Your task to perform on an android device: change keyboard looks Image 0: 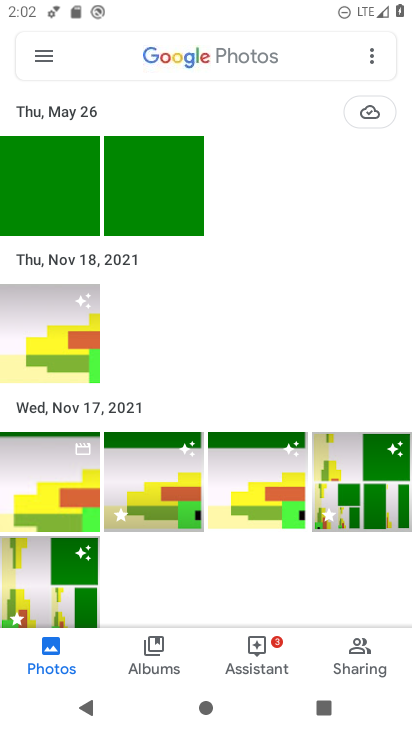
Step 0: press home button
Your task to perform on an android device: change keyboard looks Image 1: 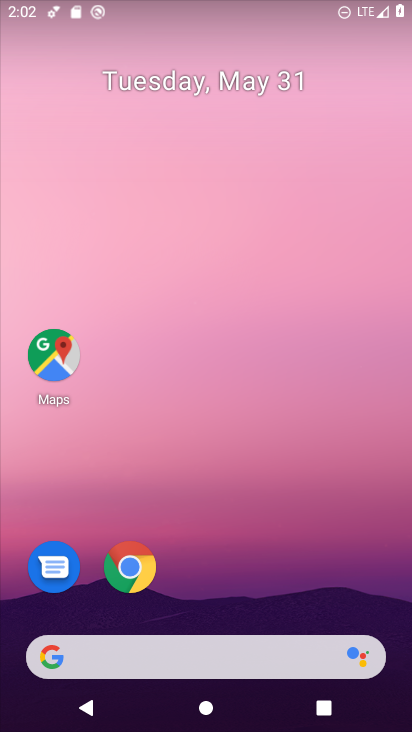
Step 1: drag from (222, 585) to (197, 136)
Your task to perform on an android device: change keyboard looks Image 2: 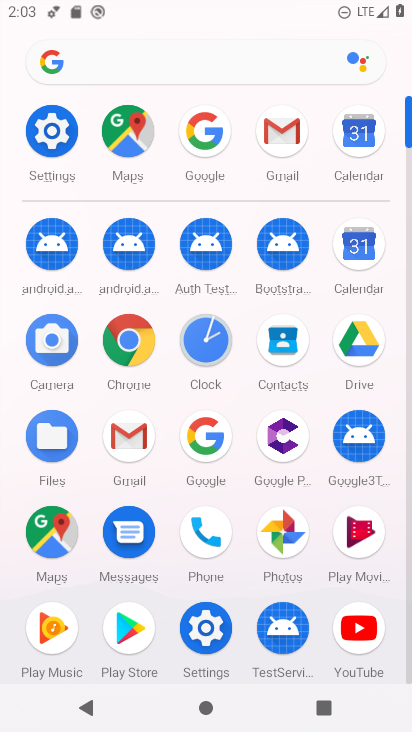
Step 2: click (69, 134)
Your task to perform on an android device: change keyboard looks Image 3: 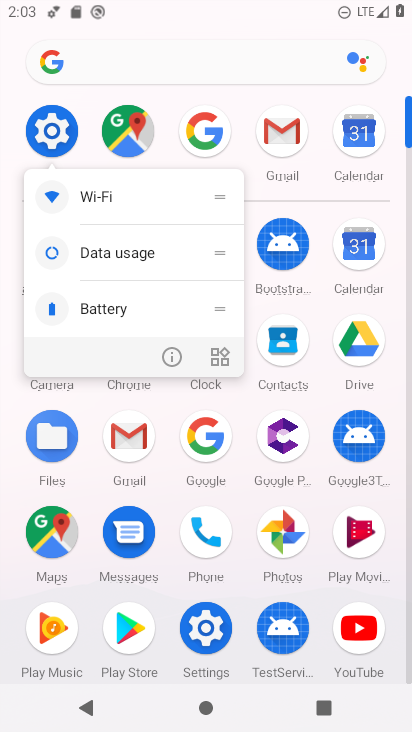
Step 3: click (67, 135)
Your task to perform on an android device: change keyboard looks Image 4: 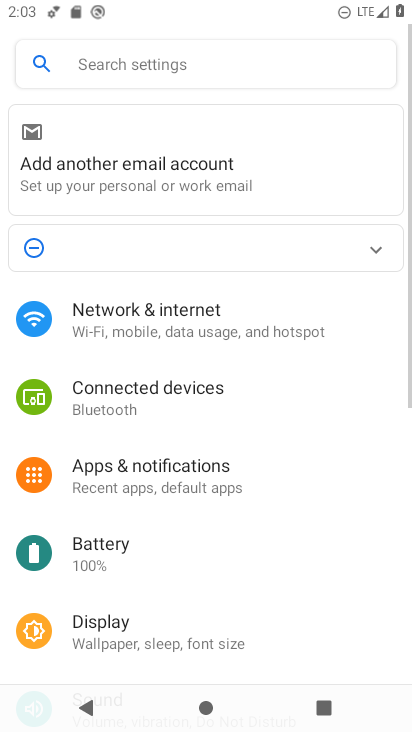
Step 4: drag from (185, 612) to (189, 306)
Your task to perform on an android device: change keyboard looks Image 5: 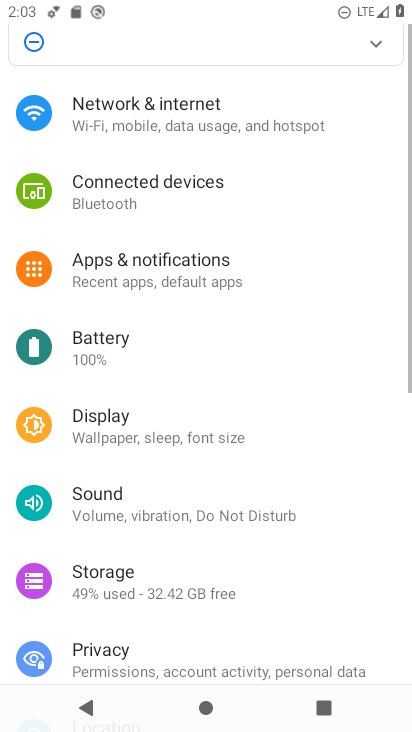
Step 5: drag from (181, 650) to (182, 279)
Your task to perform on an android device: change keyboard looks Image 6: 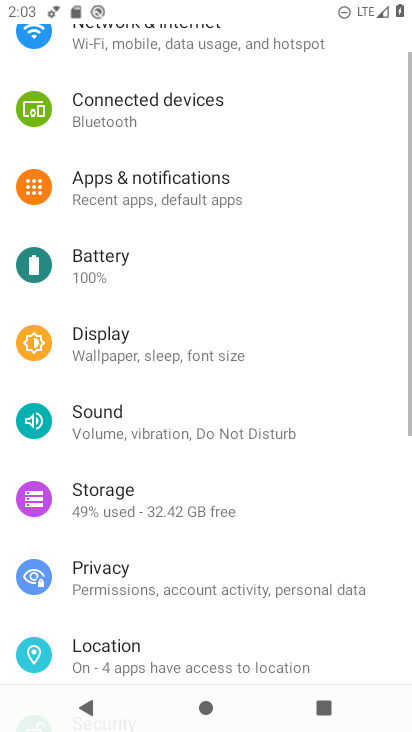
Step 6: drag from (182, 484) to (182, 218)
Your task to perform on an android device: change keyboard looks Image 7: 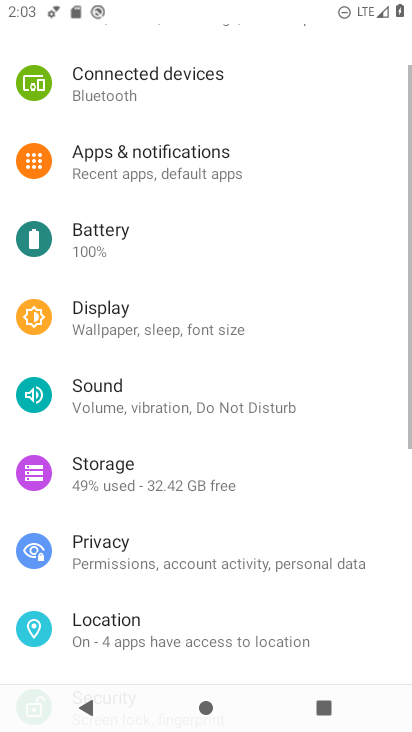
Step 7: drag from (162, 583) to (167, 198)
Your task to perform on an android device: change keyboard looks Image 8: 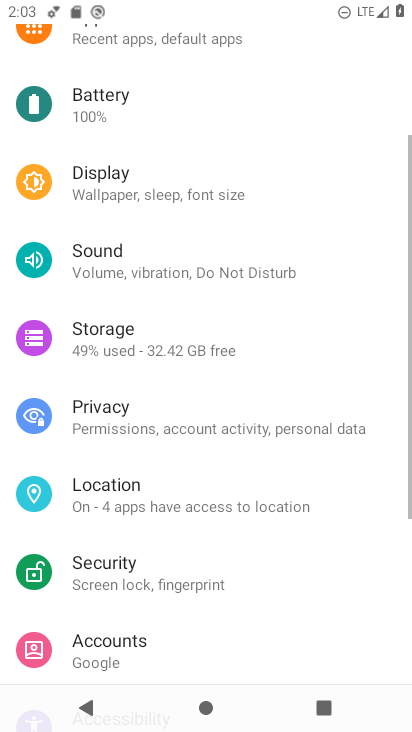
Step 8: drag from (175, 586) to (181, 226)
Your task to perform on an android device: change keyboard looks Image 9: 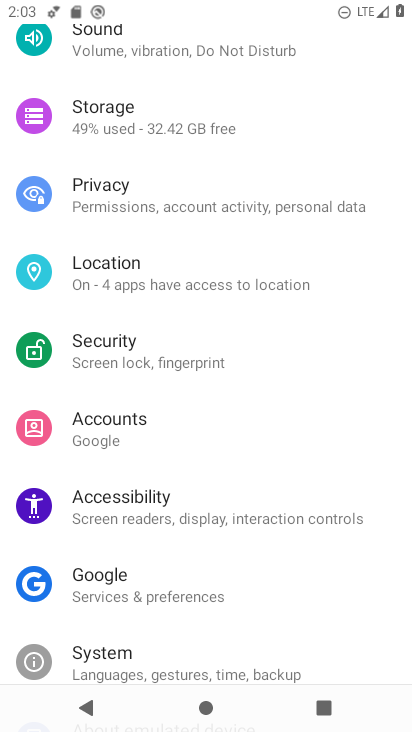
Step 9: drag from (154, 636) to (155, 321)
Your task to perform on an android device: change keyboard looks Image 10: 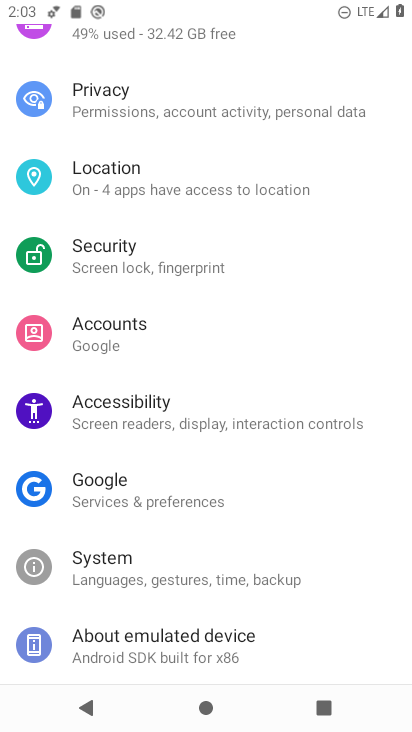
Step 10: click (118, 591)
Your task to perform on an android device: change keyboard looks Image 11: 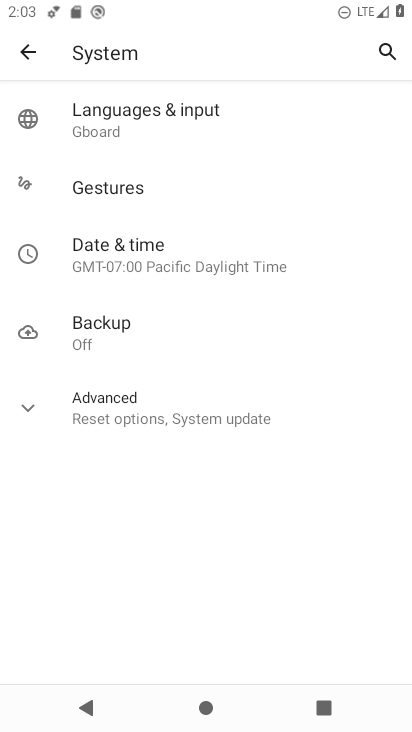
Step 11: click (130, 105)
Your task to perform on an android device: change keyboard looks Image 12: 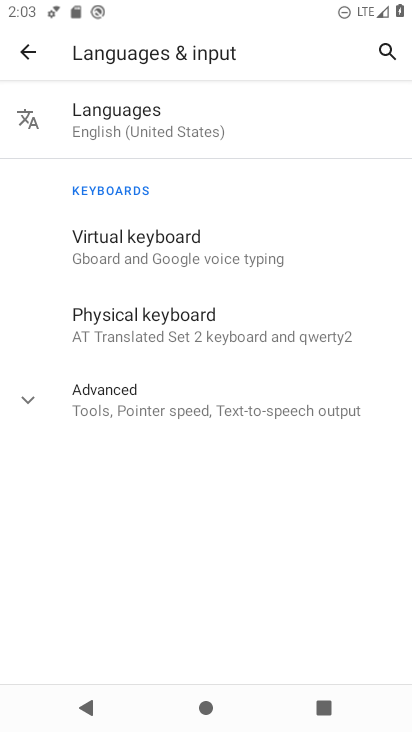
Step 12: click (163, 120)
Your task to perform on an android device: change keyboard looks Image 13: 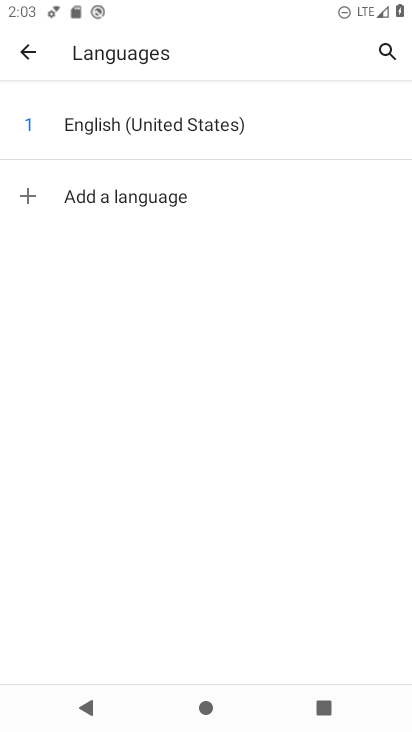
Step 13: click (23, 51)
Your task to perform on an android device: change keyboard looks Image 14: 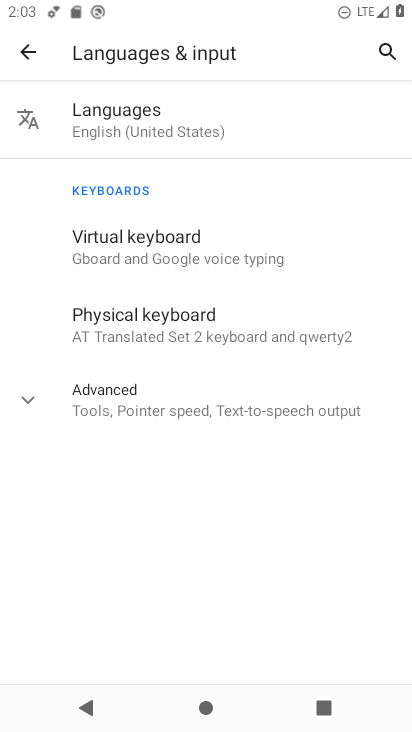
Step 14: click (141, 237)
Your task to perform on an android device: change keyboard looks Image 15: 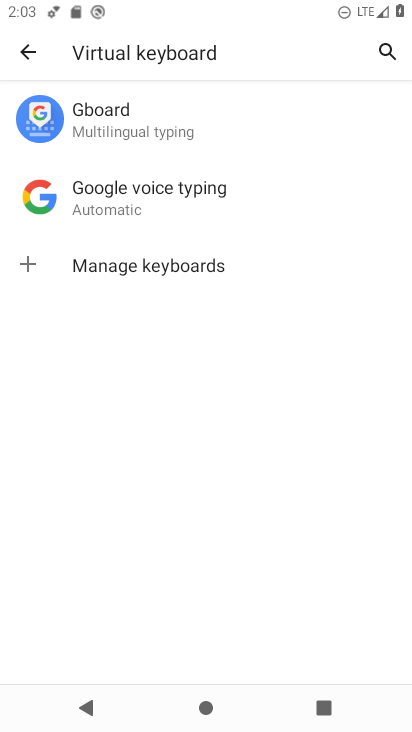
Step 15: click (122, 137)
Your task to perform on an android device: change keyboard looks Image 16: 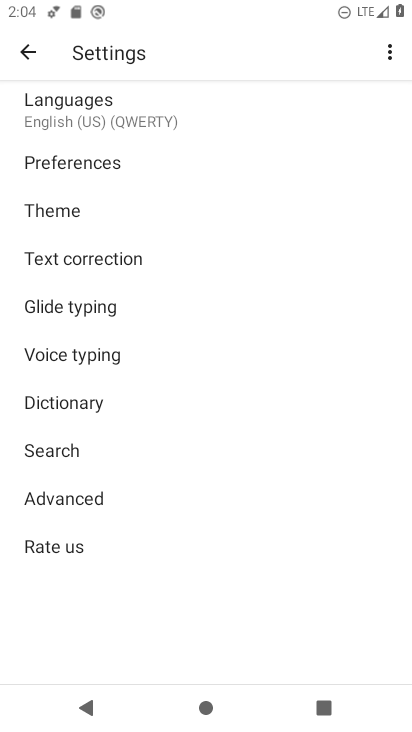
Step 16: click (118, 206)
Your task to perform on an android device: change keyboard looks Image 17: 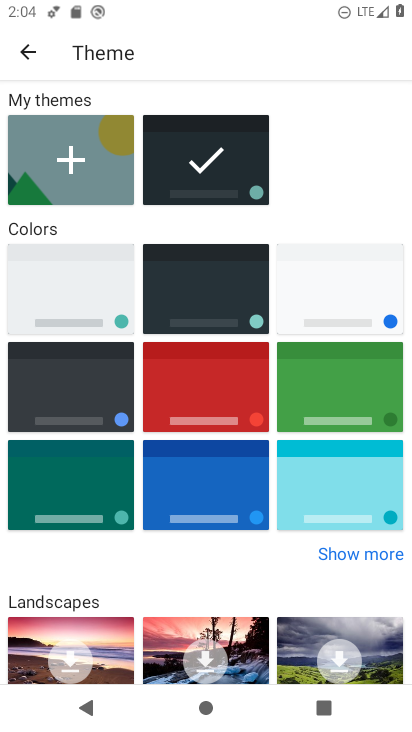
Step 17: click (94, 269)
Your task to perform on an android device: change keyboard looks Image 18: 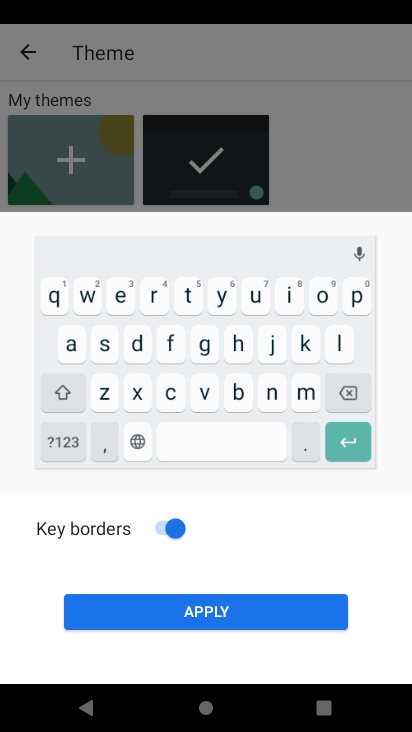
Step 18: click (207, 604)
Your task to perform on an android device: change keyboard looks Image 19: 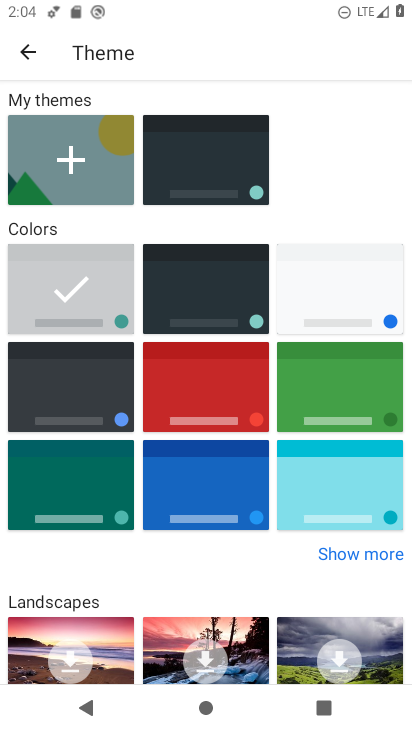
Step 19: task complete